Your task to perform on an android device: Open Google Chrome and open the bookmarks view Image 0: 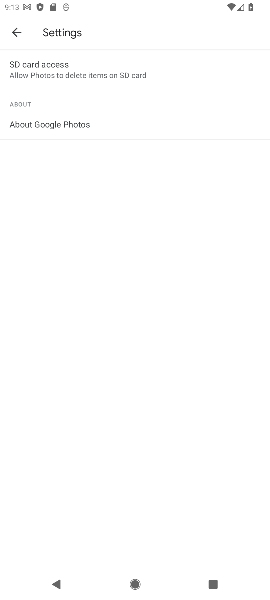
Step 0: press home button
Your task to perform on an android device: Open Google Chrome and open the bookmarks view Image 1: 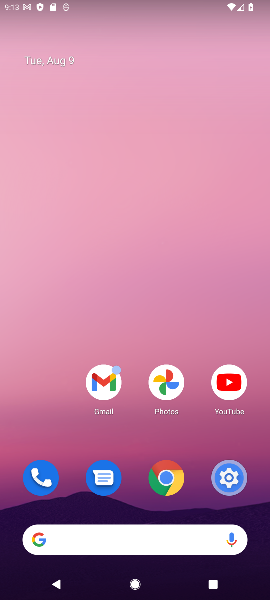
Step 1: drag from (62, 407) to (102, 160)
Your task to perform on an android device: Open Google Chrome and open the bookmarks view Image 2: 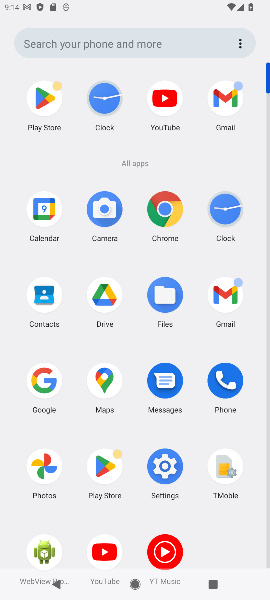
Step 2: click (147, 207)
Your task to perform on an android device: Open Google Chrome and open the bookmarks view Image 3: 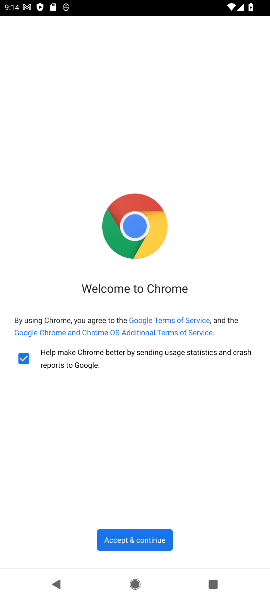
Step 3: click (131, 541)
Your task to perform on an android device: Open Google Chrome and open the bookmarks view Image 4: 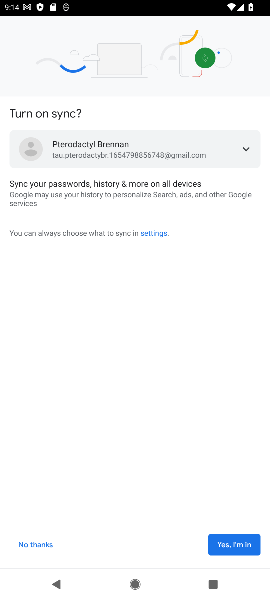
Step 4: click (233, 548)
Your task to perform on an android device: Open Google Chrome and open the bookmarks view Image 5: 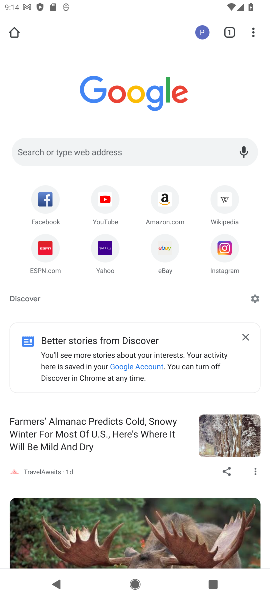
Step 5: task complete